Your task to perform on an android device: toggle priority inbox in the gmail app Image 0: 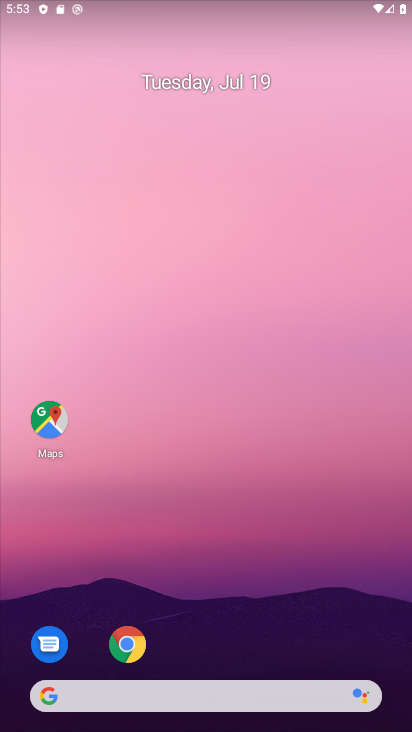
Step 0: drag from (240, 584) to (235, 124)
Your task to perform on an android device: toggle priority inbox in the gmail app Image 1: 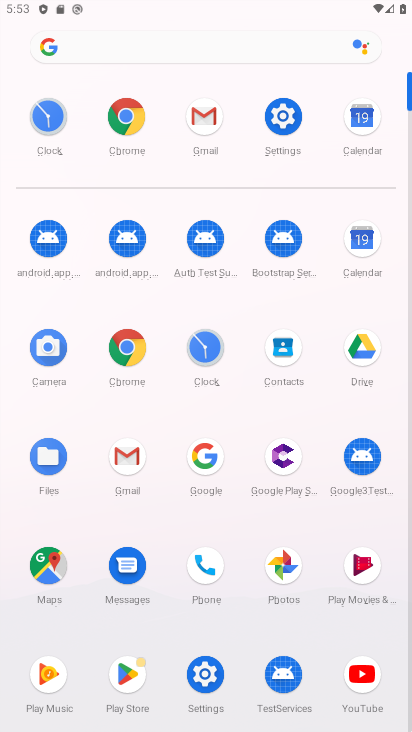
Step 1: click (119, 459)
Your task to perform on an android device: toggle priority inbox in the gmail app Image 2: 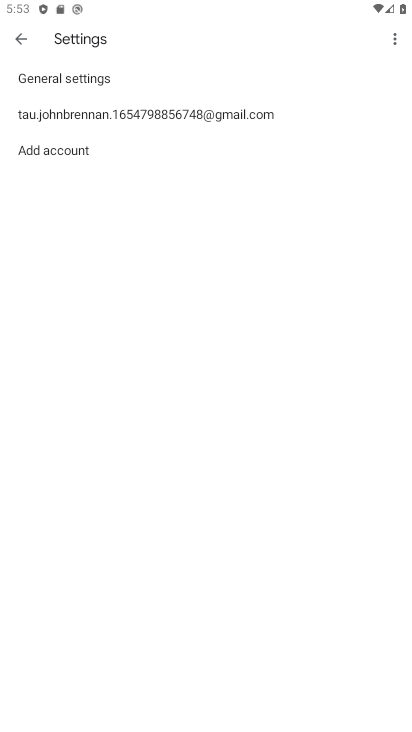
Step 2: click (21, 36)
Your task to perform on an android device: toggle priority inbox in the gmail app Image 3: 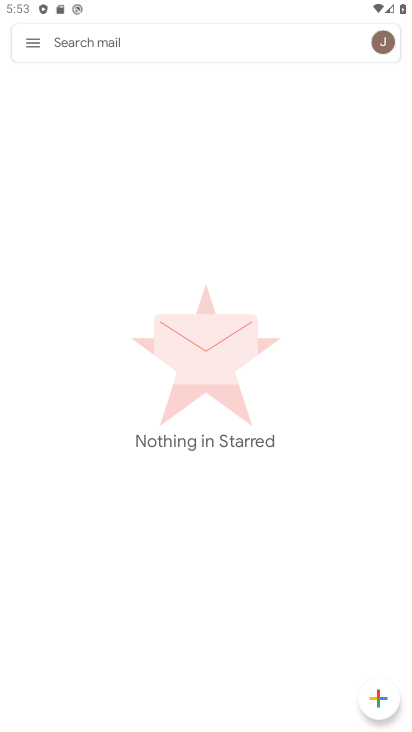
Step 3: click (30, 42)
Your task to perform on an android device: toggle priority inbox in the gmail app Image 4: 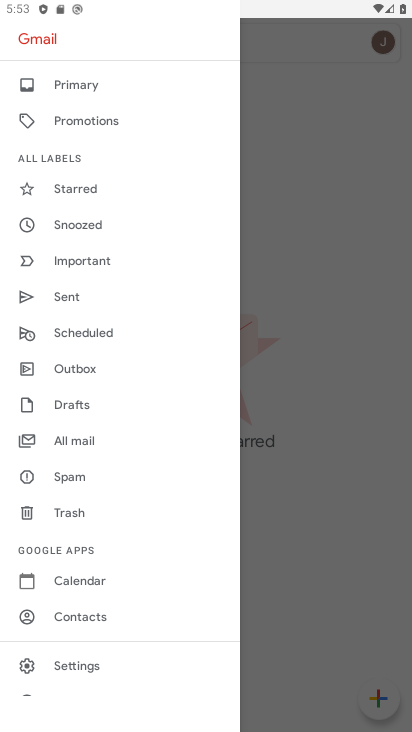
Step 4: click (87, 661)
Your task to perform on an android device: toggle priority inbox in the gmail app Image 5: 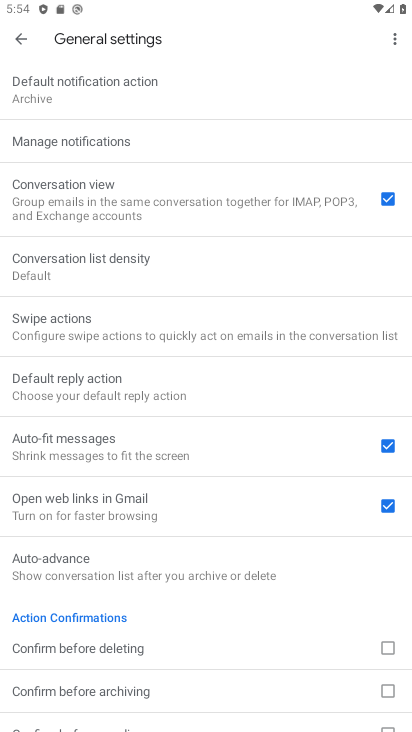
Step 5: task complete